Your task to perform on an android device: Open calendar and show me the fourth week of next month Image 0: 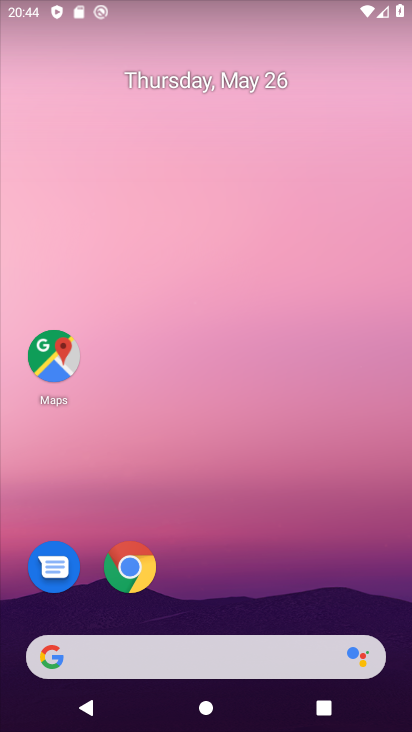
Step 0: drag from (291, 602) to (284, 346)
Your task to perform on an android device: Open calendar and show me the fourth week of next month Image 1: 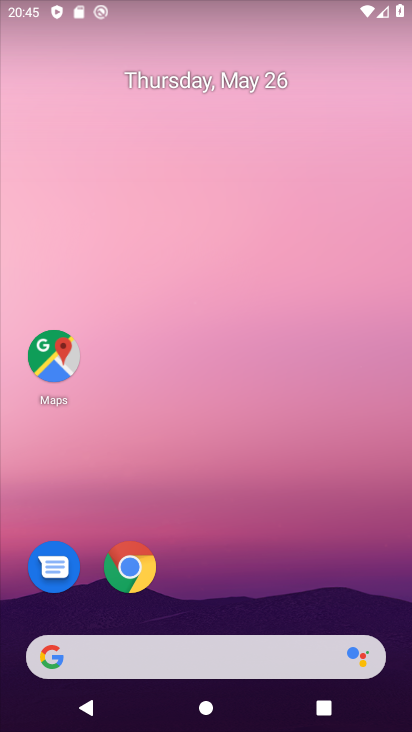
Step 1: drag from (280, 582) to (254, 294)
Your task to perform on an android device: Open calendar and show me the fourth week of next month Image 2: 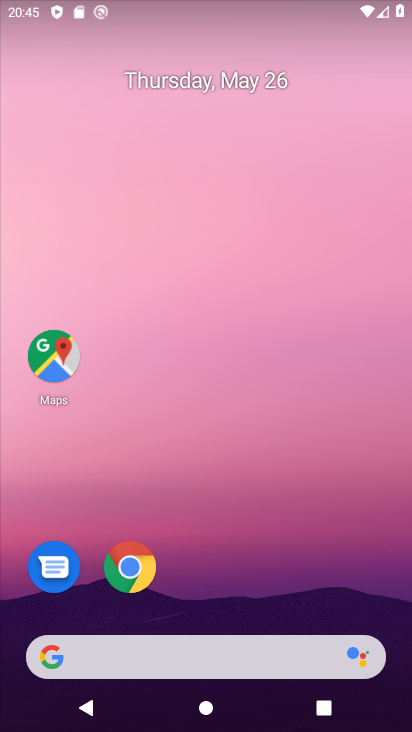
Step 2: drag from (247, 601) to (309, 84)
Your task to perform on an android device: Open calendar and show me the fourth week of next month Image 3: 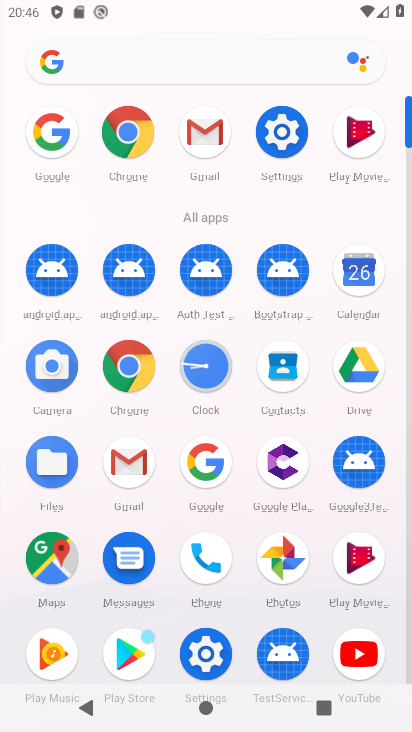
Step 3: click (348, 281)
Your task to perform on an android device: Open calendar and show me the fourth week of next month Image 4: 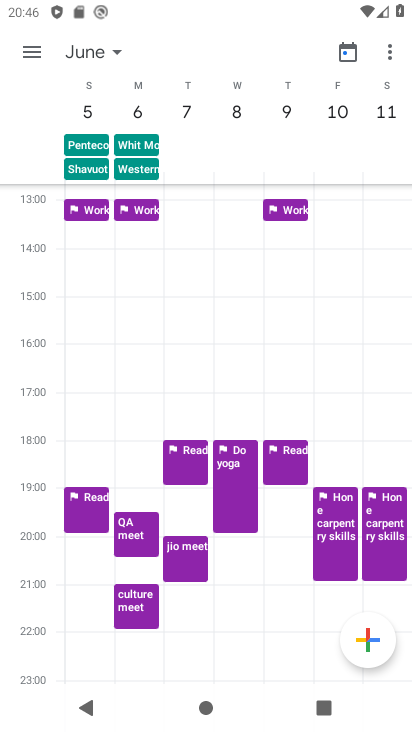
Step 4: click (110, 49)
Your task to perform on an android device: Open calendar and show me the fourth week of next month Image 5: 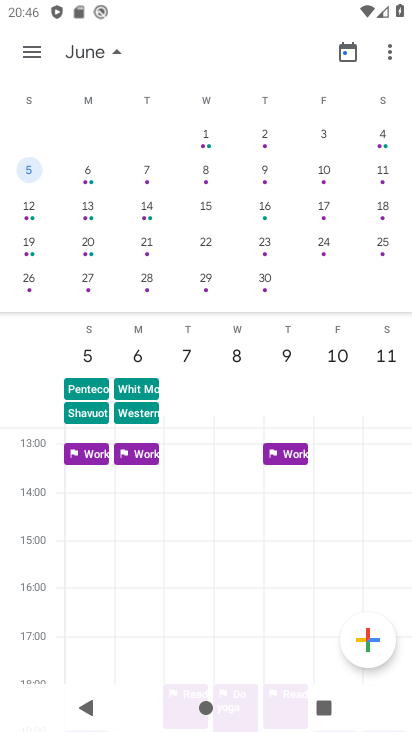
Step 5: click (88, 242)
Your task to perform on an android device: Open calendar and show me the fourth week of next month Image 6: 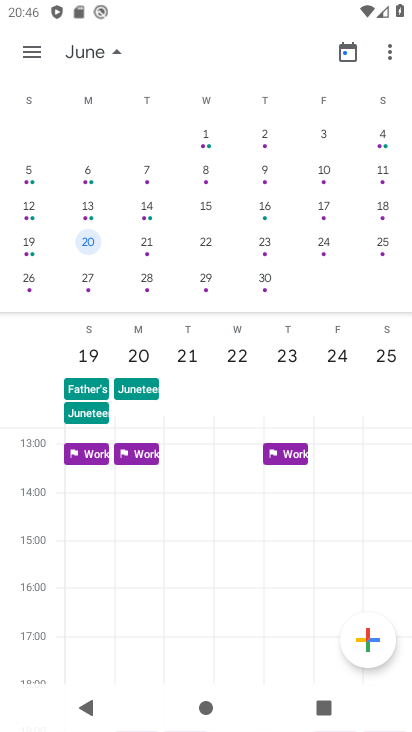
Step 6: task complete